Your task to perform on an android device: Open the Play Movies app and select the watchlist tab. Image 0: 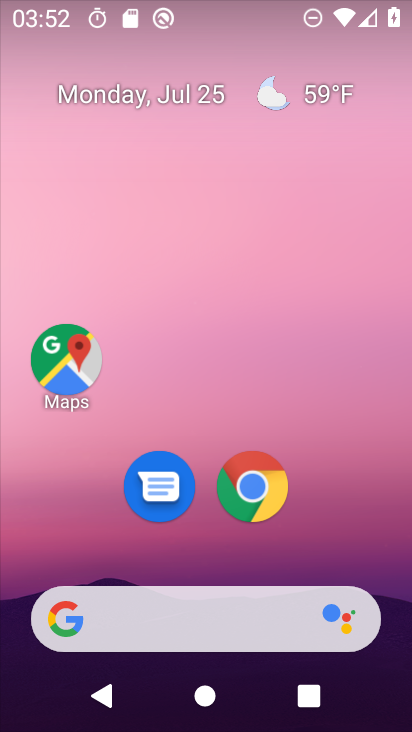
Step 0: drag from (191, 552) to (231, 72)
Your task to perform on an android device: Open the Play Movies app and select the watchlist tab. Image 1: 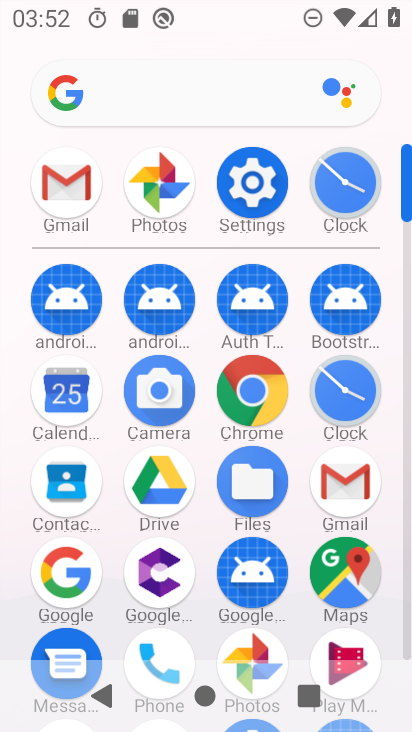
Step 1: drag from (269, 588) to (296, 125)
Your task to perform on an android device: Open the Play Movies app and select the watchlist tab. Image 2: 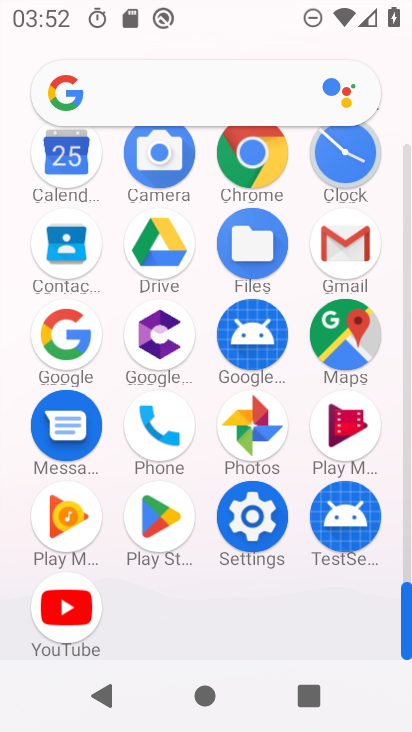
Step 2: click (340, 413)
Your task to perform on an android device: Open the Play Movies app and select the watchlist tab. Image 3: 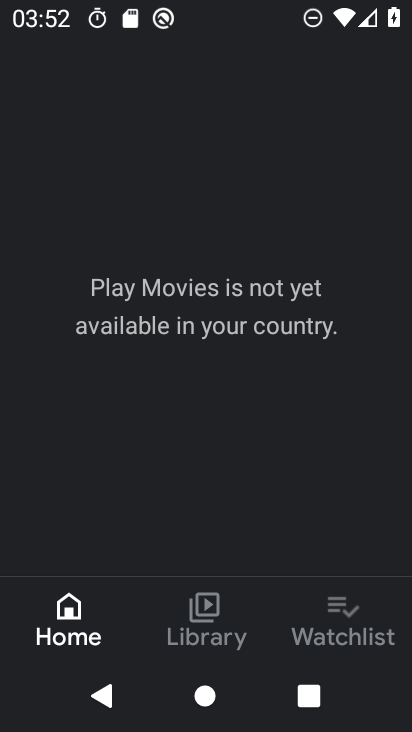
Step 3: click (346, 624)
Your task to perform on an android device: Open the Play Movies app and select the watchlist tab. Image 4: 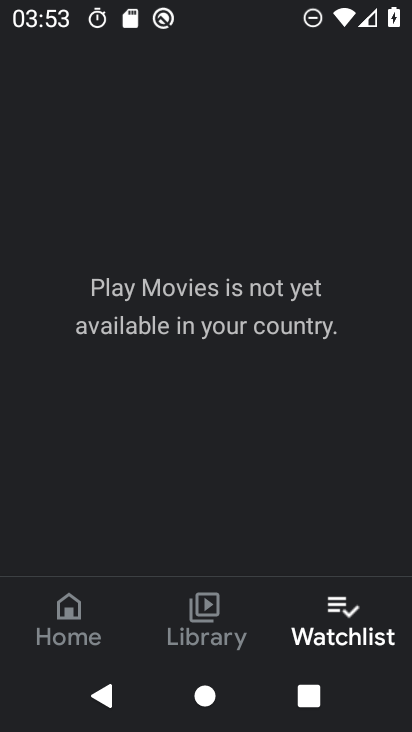
Step 4: task complete